Your task to perform on an android device: Go to Yahoo.com Image 0: 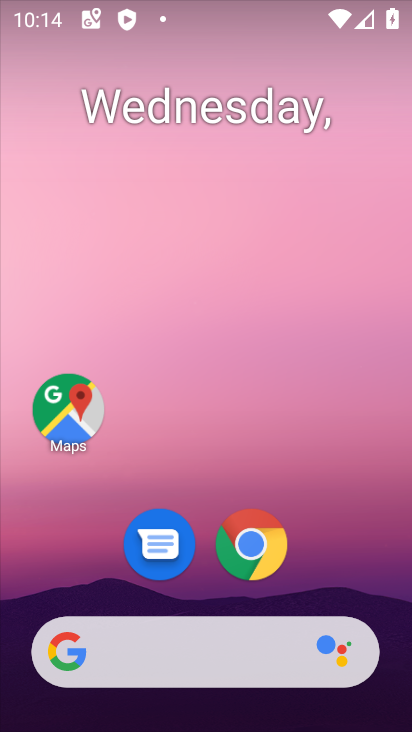
Step 0: click (260, 549)
Your task to perform on an android device: Go to Yahoo.com Image 1: 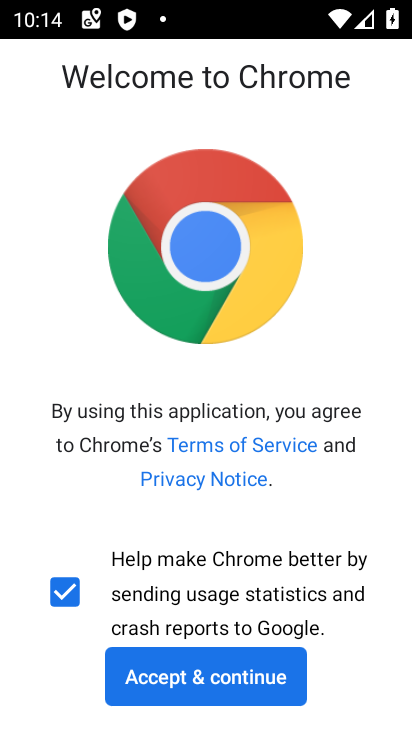
Step 1: click (224, 688)
Your task to perform on an android device: Go to Yahoo.com Image 2: 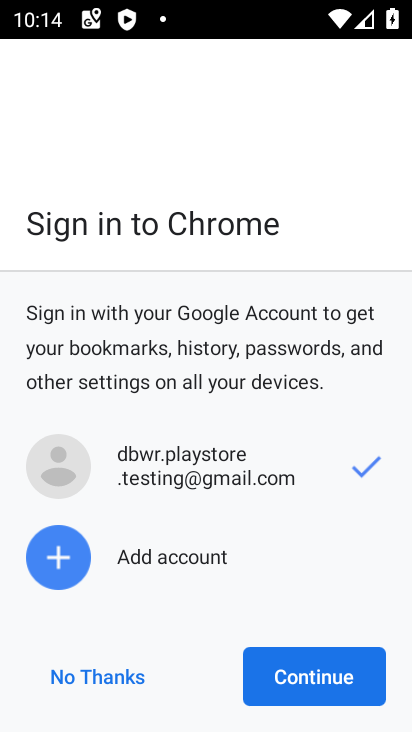
Step 2: click (280, 661)
Your task to perform on an android device: Go to Yahoo.com Image 3: 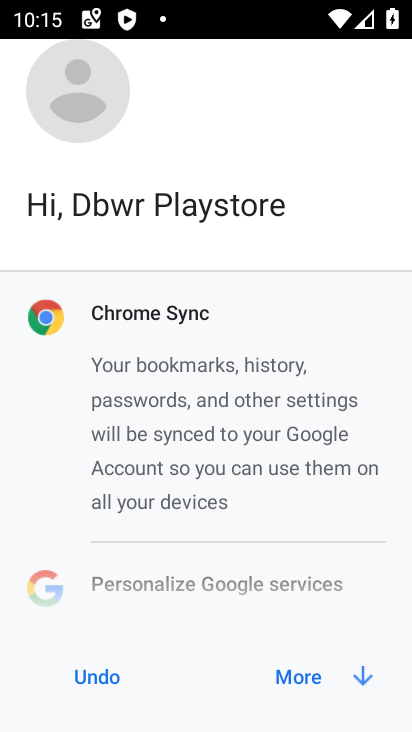
Step 3: click (285, 669)
Your task to perform on an android device: Go to Yahoo.com Image 4: 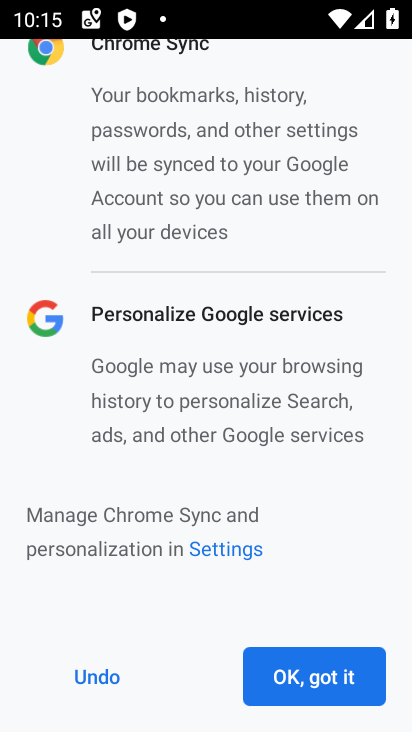
Step 4: click (285, 670)
Your task to perform on an android device: Go to Yahoo.com Image 5: 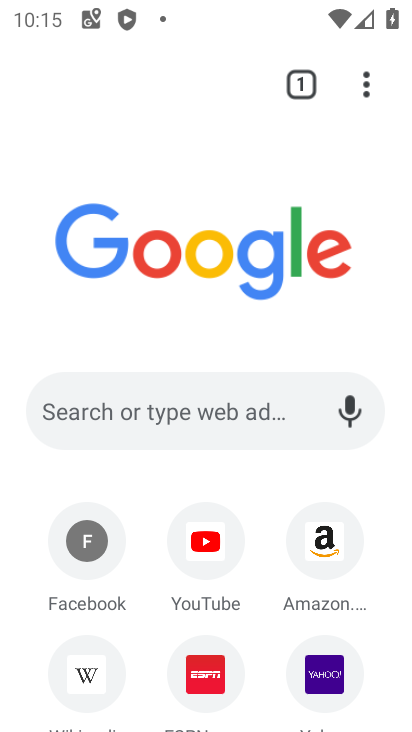
Step 5: click (314, 664)
Your task to perform on an android device: Go to Yahoo.com Image 6: 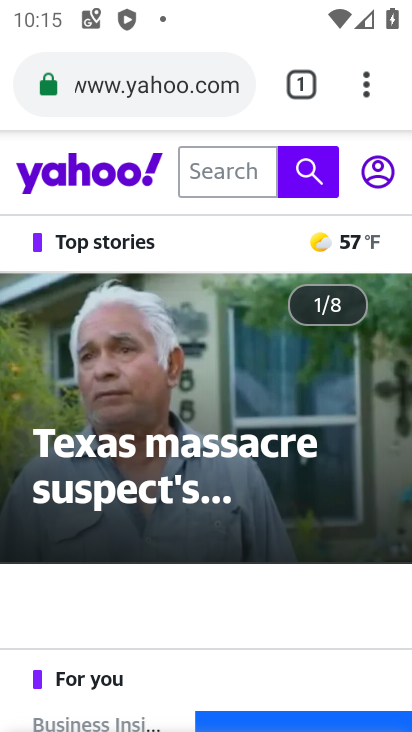
Step 6: task complete